Your task to perform on an android device: Go to location settings Image 0: 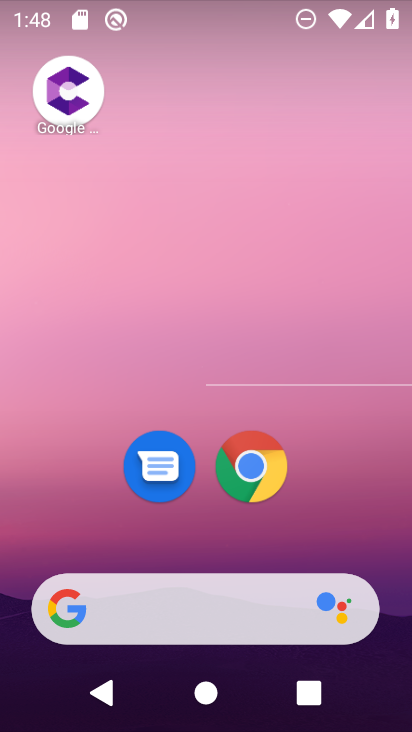
Step 0: drag from (178, 569) to (283, 45)
Your task to perform on an android device: Go to location settings Image 1: 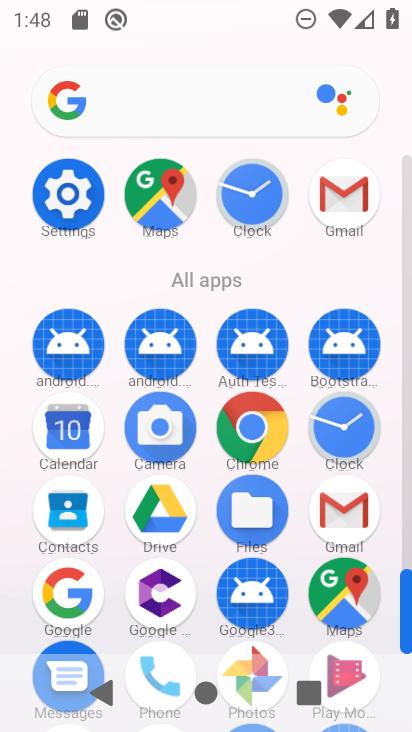
Step 1: drag from (194, 615) to (221, 437)
Your task to perform on an android device: Go to location settings Image 2: 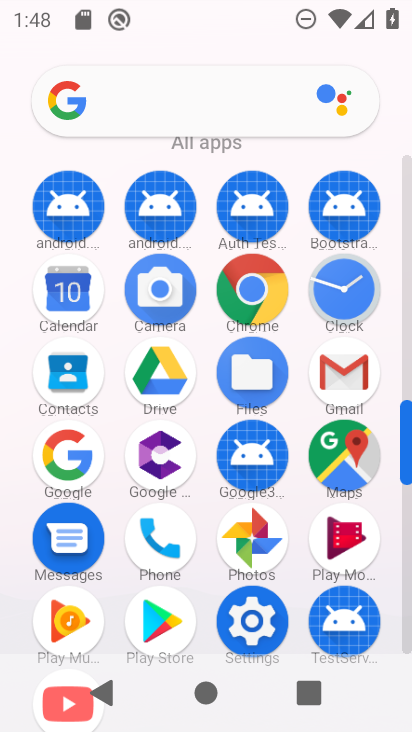
Step 2: click (248, 619)
Your task to perform on an android device: Go to location settings Image 3: 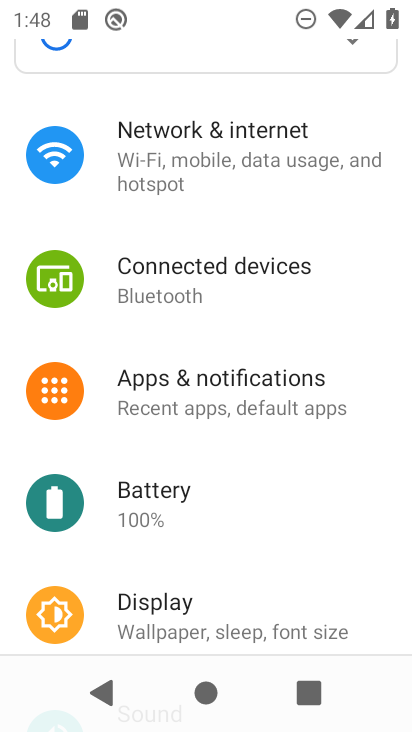
Step 3: drag from (172, 570) to (260, 234)
Your task to perform on an android device: Go to location settings Image 4: 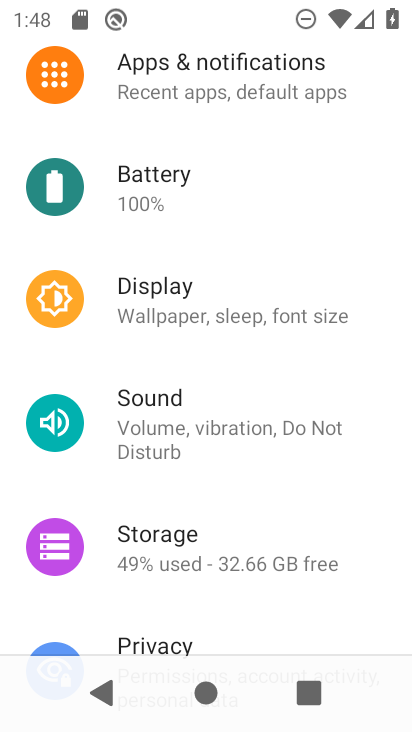
Step 4: drag from (164, 589) to (226, 275)
Your task to perform on an android device: Go to location settings Image 5: 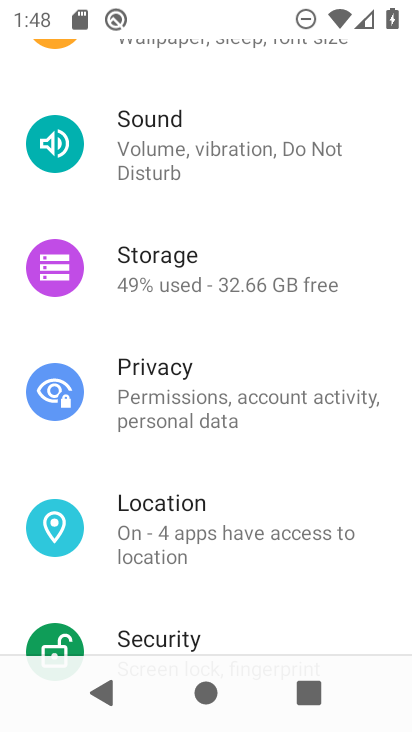
Step 5: click (183, 511)
Your task to perform on an android device: Go to location settings Image 6: 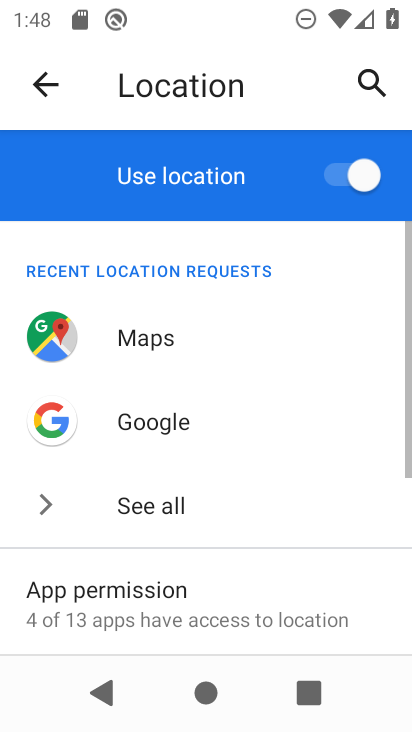
Step 6: task complete